Your task to perform on an android device: refresh tabs in the chrome app Image 0: 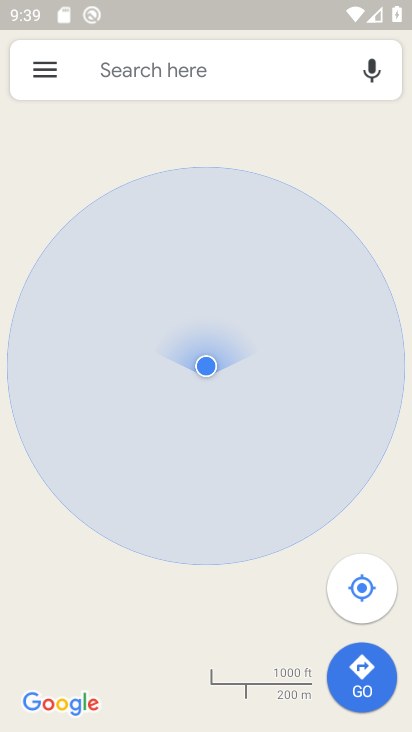
Step 0: press home button
Your task to perform on an android device: refresh tabs in the chrome app Image 1: 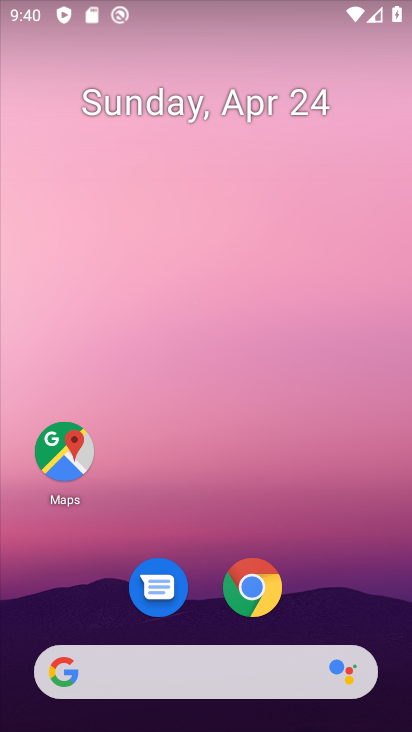
Step 1: drag from (215, 587) to (205, 102)
Your task to perform on an android device: refresh tabs in the chrome app Image 2: 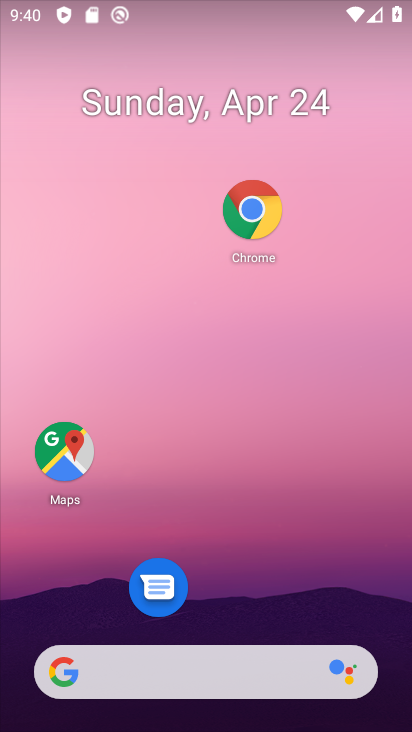
Step 2: drag from (308, 624) to (302, 34)
Your task to perform on an android device: refresh tabs in the chrome app Image 3: 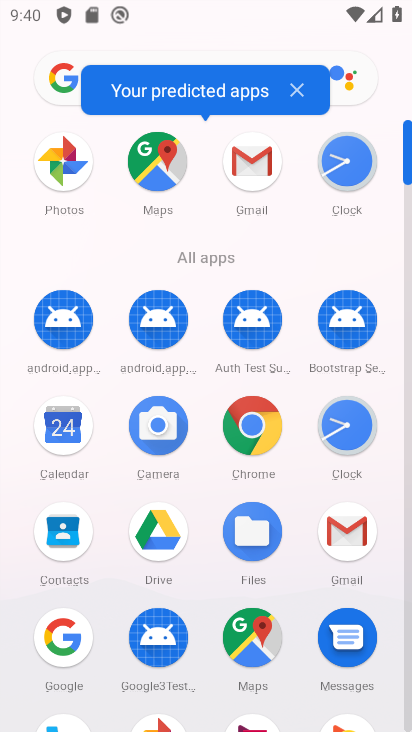
Step 3: click (248, 415)
Your task to perform on an android device: refresh tabs in the chrome app Image 4: 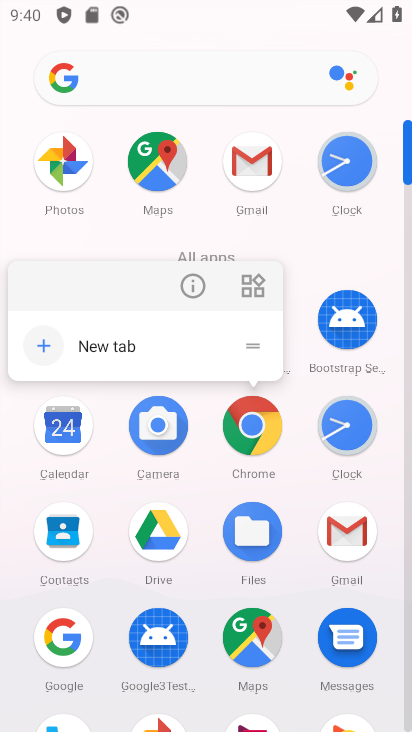
Step 4: click (248, 418)
Your task to perform on an android device: refresh tabs in the chrome app Image 5: 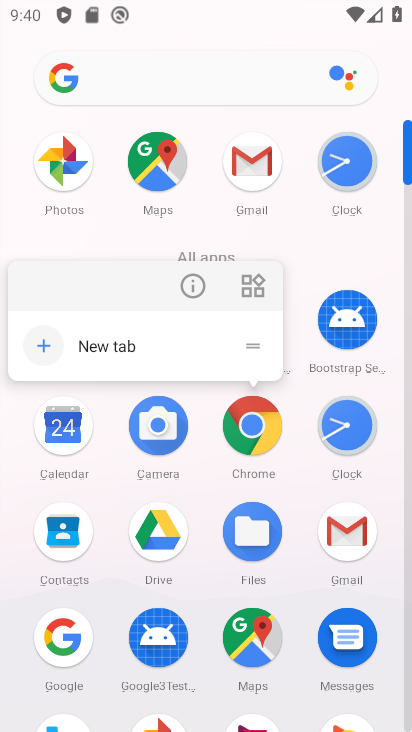
Step 5: click (248, 416)
Your task to perform on an android device: refresh tabs in the chrome app Image 6: 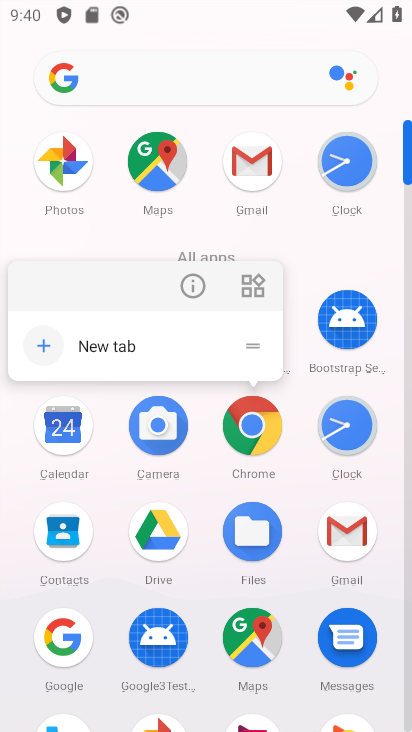
Step 6: click (252, 415)
Your task to perform on an android device: refresh tabs in the chrome app Image 7: 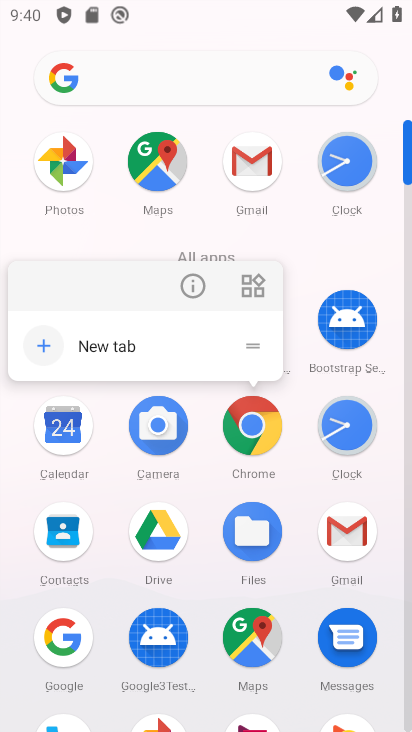
Step 7: click (204, 478)
Your task to perform on an android device: refresh tabs in the chrome app Image 8: 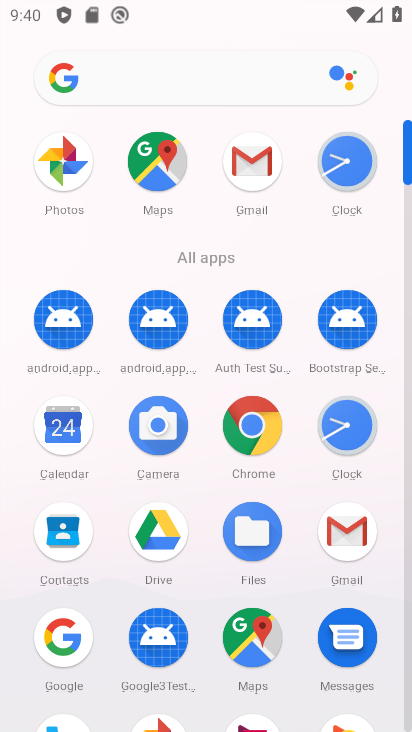
Step 8: click (248, 417)
Your task to perform on an android device: refresh tabs in the chrome app Image 9: 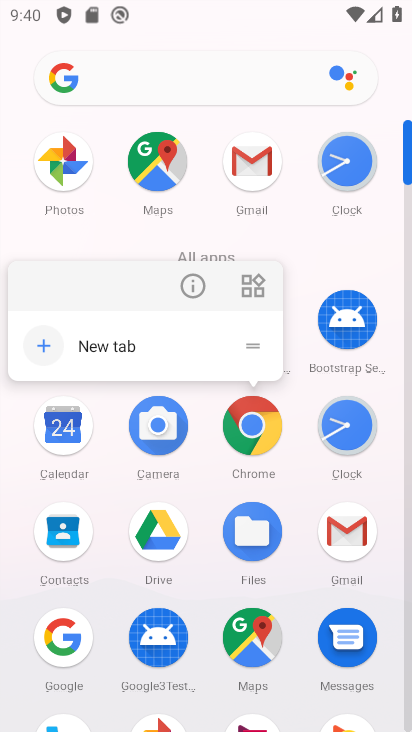
Step 9: click (252, 423)
Your task to perform on an android device: refresh tabs in the chrome app Image 10: 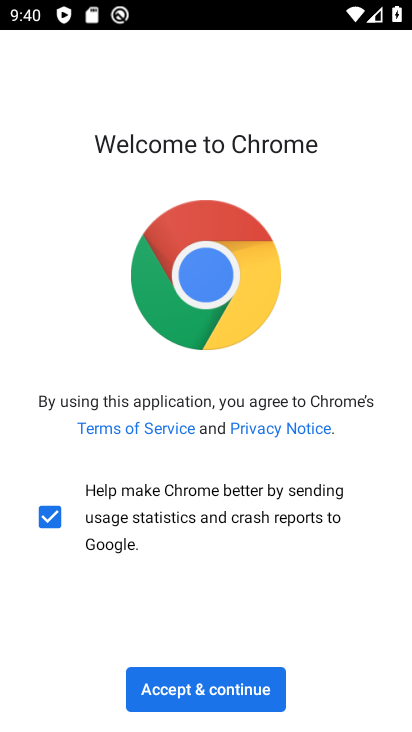
Step 10: click (208, 686)
Your task to perform on an android device: refresh tabs in the chrome app Image 11: 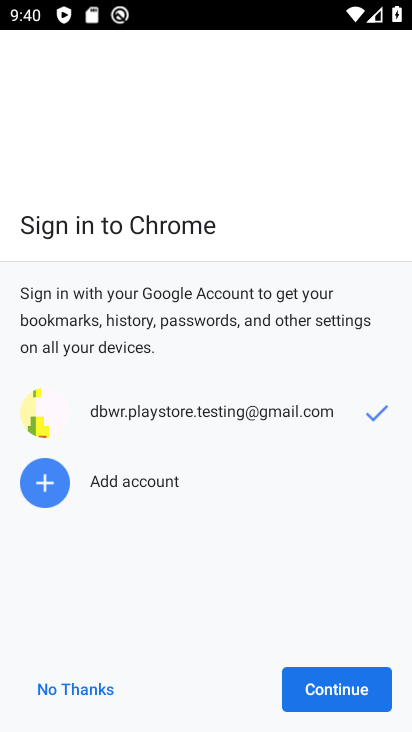
Step 11: click (344, 684)
Your task to perform on an android device: refresh tabs in the chrome app Image 12: 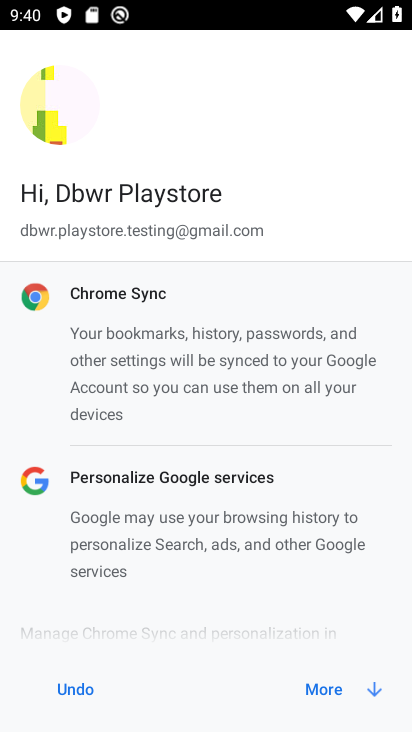
Step 12: click (340, 685)
Your task to perform on an android device: refresh tabs in the chrome app Image 13: 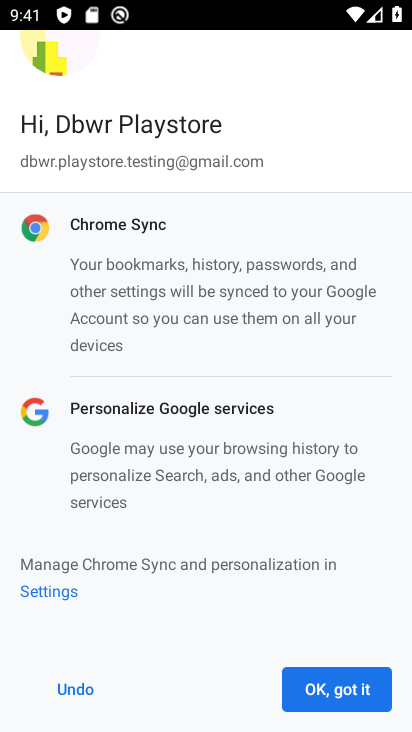
Step 13: click (326, 692)
Your task to perform on an android device: refresh tabs in the chrome app Image 14: 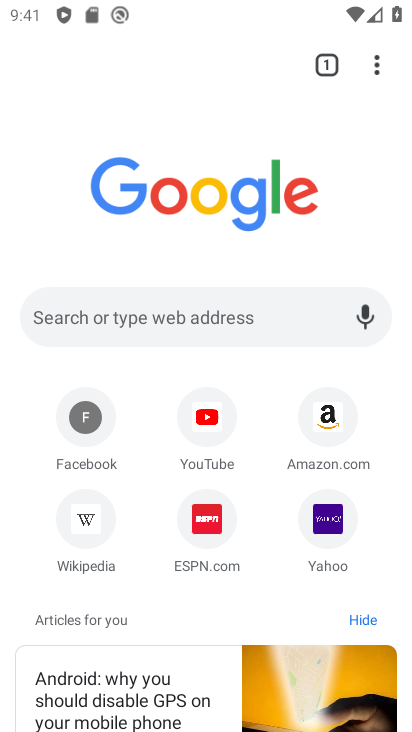
Step 14: click (372, 65)
Your task to perform on an android device: refresh tabs in the chrome app Image 15: 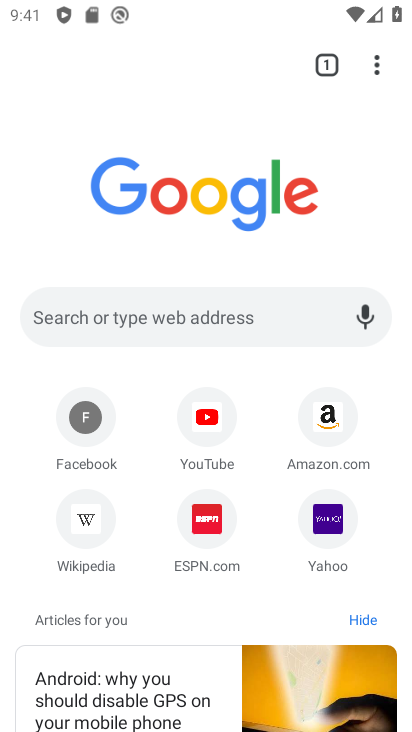
Step 15: click (376, 67)
Your task to perform on an android device: refresh tabs in the chrome app Image 16: 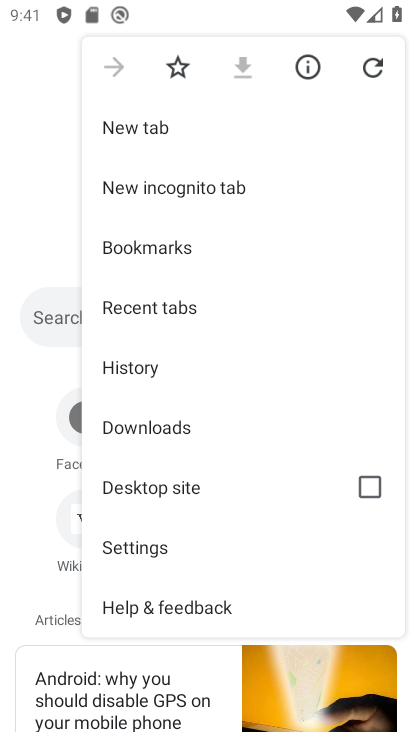
Step 16: click (376, 67)
Your task to perform on an android device: refresh tabs in the chrome app Image 17: 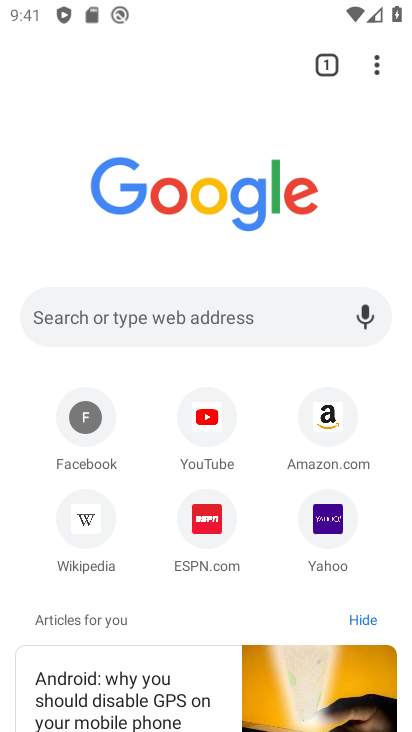
Step 17: task complete